Your task to perform on an android device: Go to eBay Image 0: 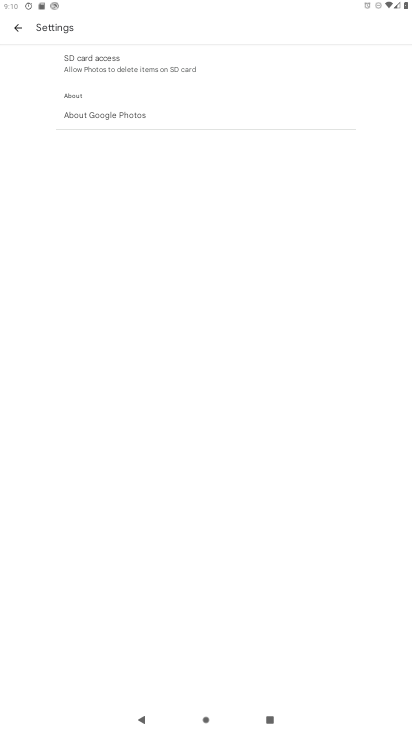
Step 0: press home button
Your task to perform on an android device: Go to eBay Image 1: 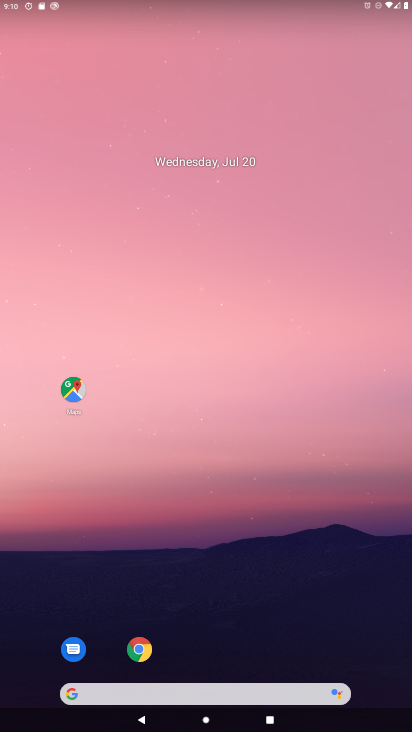
Step 1: click (141, 649)
Your task to perform on an android device: Go to eBay Image 2: 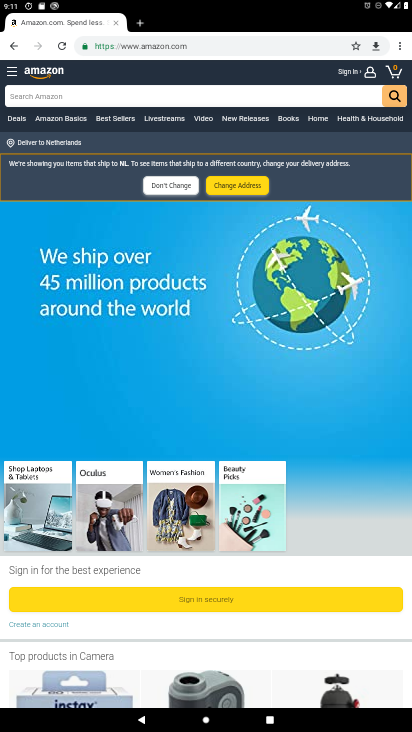
Step 2: click (237, 44)
Your task to perform on an android device: Go to eBay Image 3: 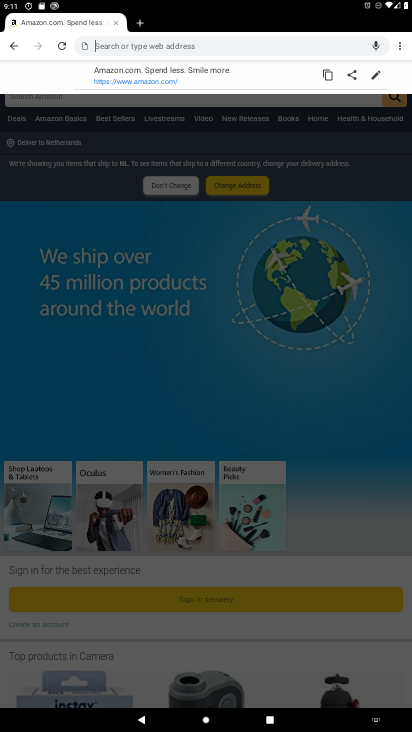
Step 3: type "eBay"
Your task to perform on an android device: Go to eBay Image 4: 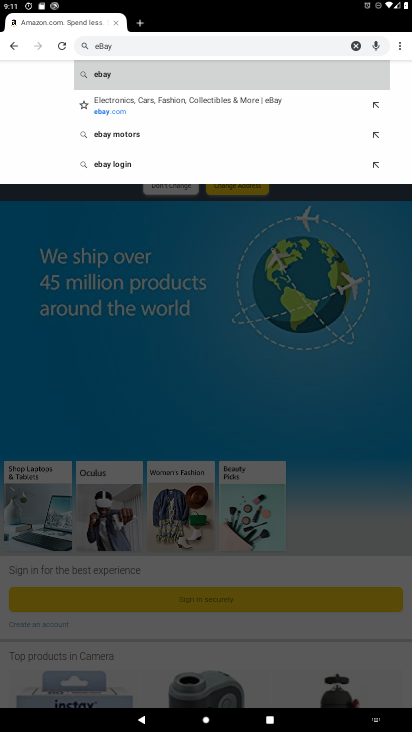
Step 4: click (131, 81)
Your task to perform on an android device: Go to eBay Image 5: 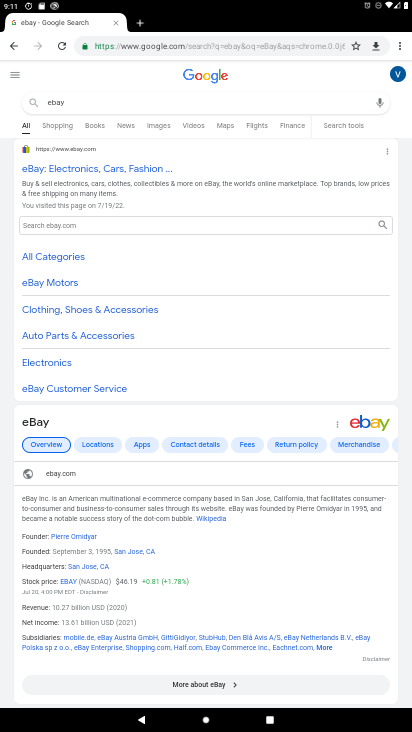
Step 5: click (108, 171)
Your task to perform on an android device: Go to eBay Image 6: 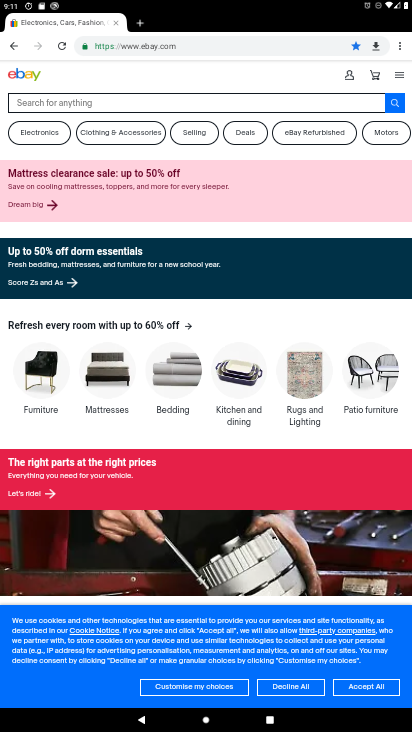
Step 6: click (370, 687)
Your task to perform on an android device: Go to eBay Image 7: 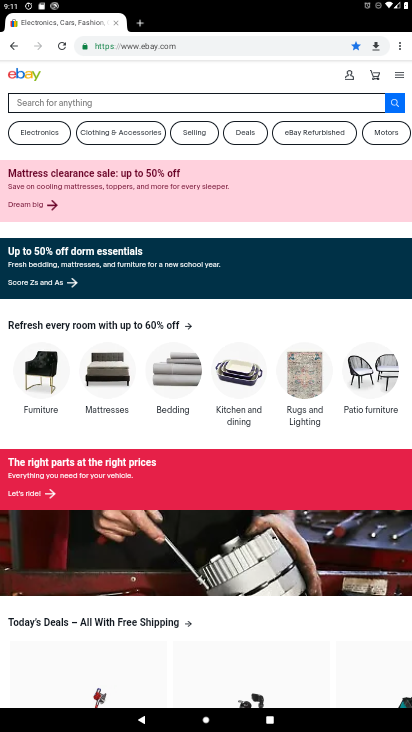
Step 7: task complete